Your task to perform on an android device: check storage Image 0: 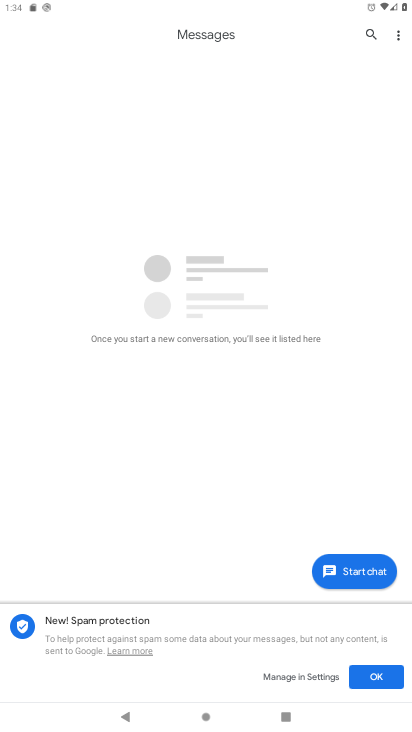
Step 0: press home button
Your task to perform on an android device: check storage Image 1: 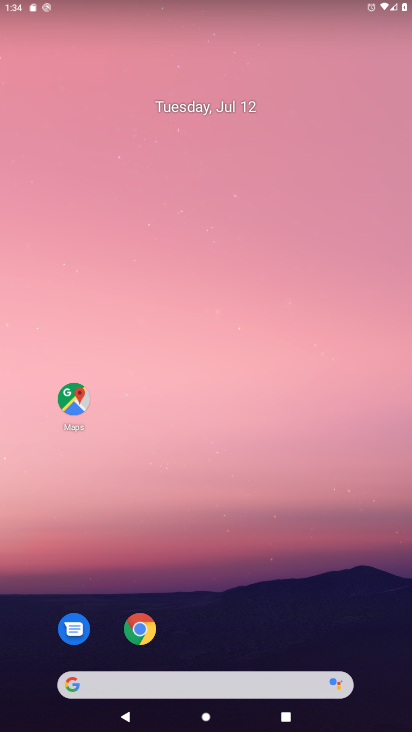
Step 1: drag from (228, 679) to (241, 15)
Your task to perform on an android device: check storage Image 2: 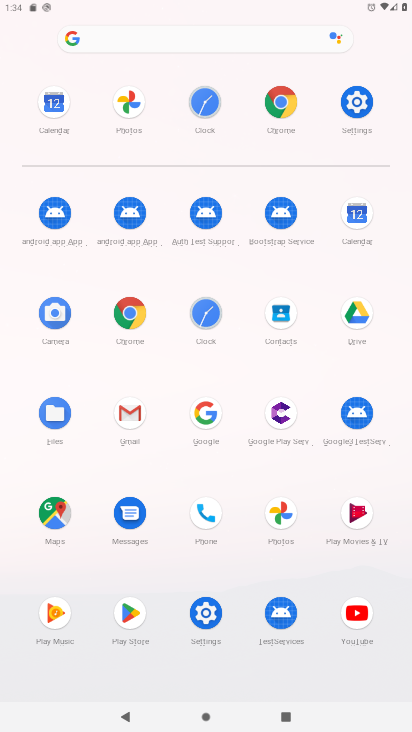
Step 2: click (358, 103)
Your task to perform on an android device: check storage Image 3: 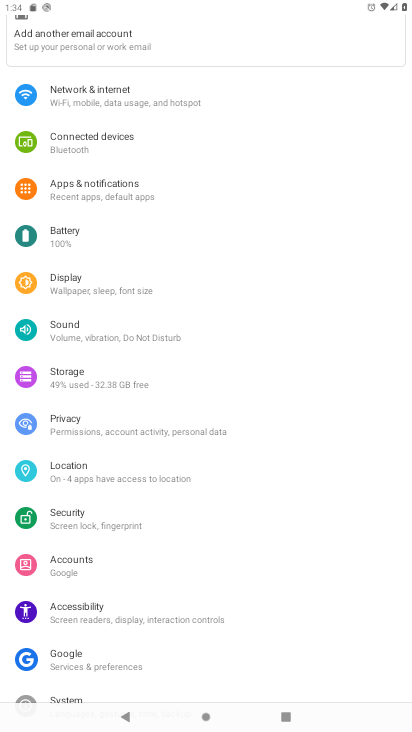
Step 3: click (74, 377)
Your task to perform on an android device: check storage Image 4: 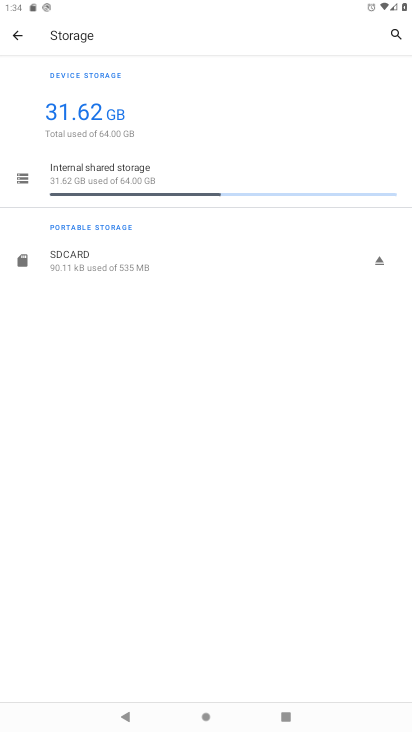
Step 4: task complete